Your task to perform on an android device: toggle translation in the chrome app Image 0: 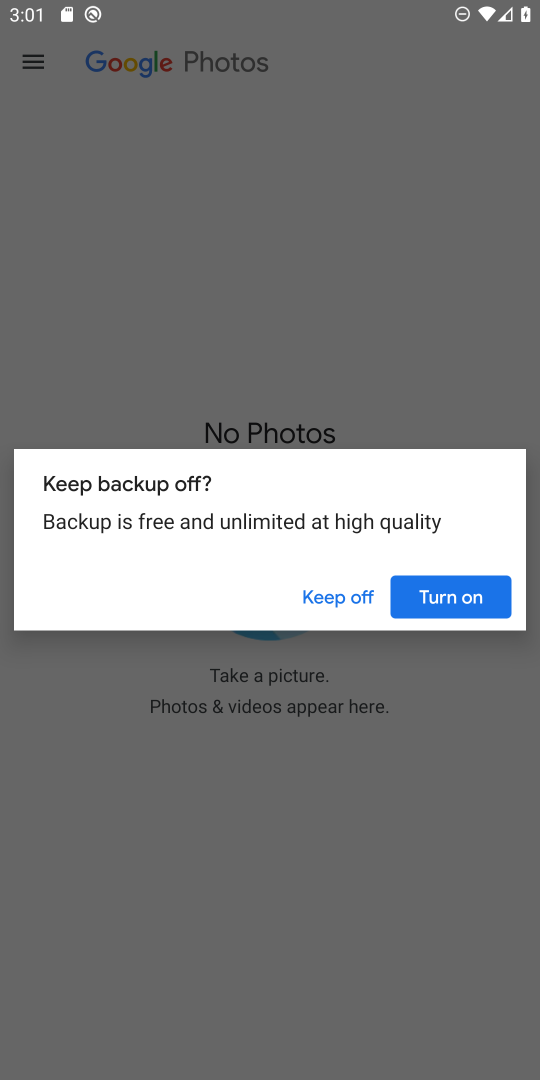
Step 0: click (451, 602)
Your task to perform on an android device: toggle translation in the chrome app Image 1: 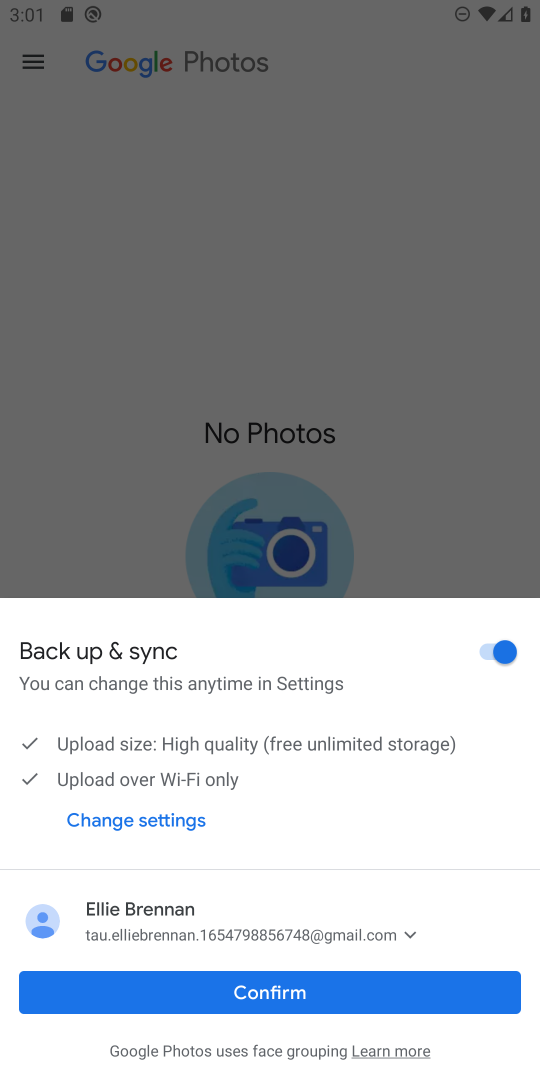
Step 1: press home button
Your task to perform on an android device: toggle translation in the chrome app Image 2: 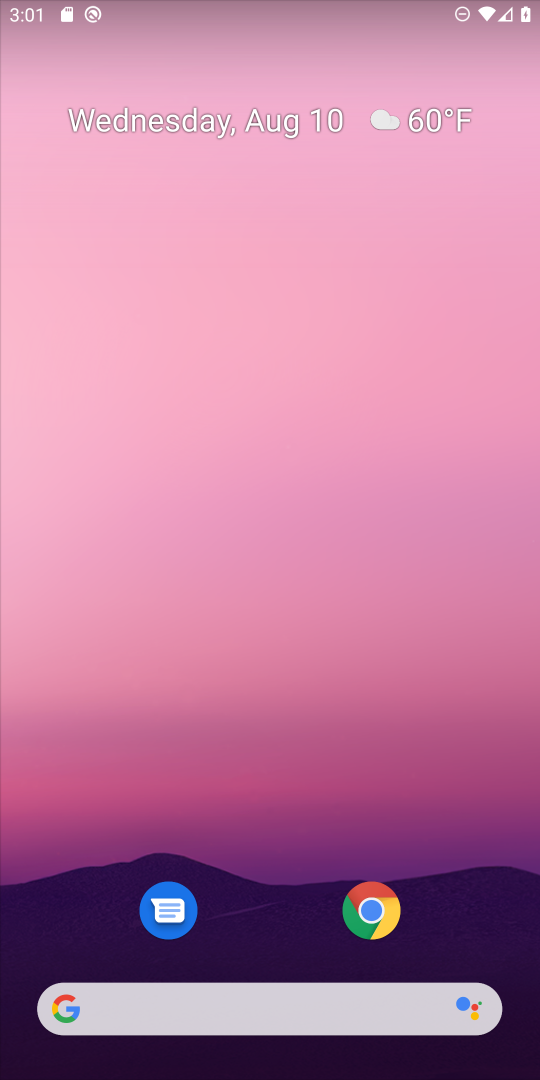
Step 2: click (378, 926)
Your task to perform on an android device: toggle translation in the chrome app Image 3: 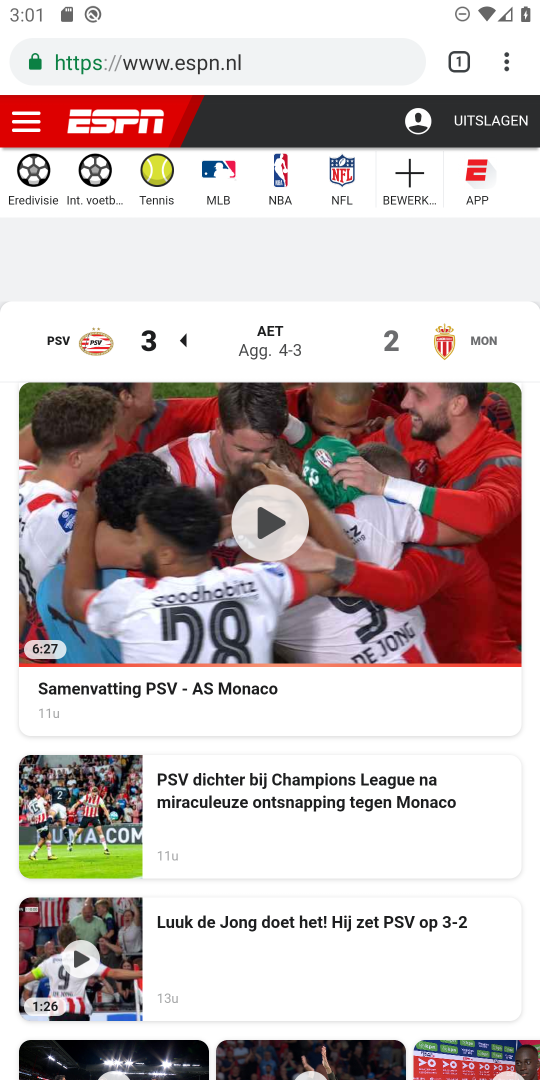
Step 3: click (500, 55)
Your task to perform on an android device: toggle translation in the chrome app Image 4: 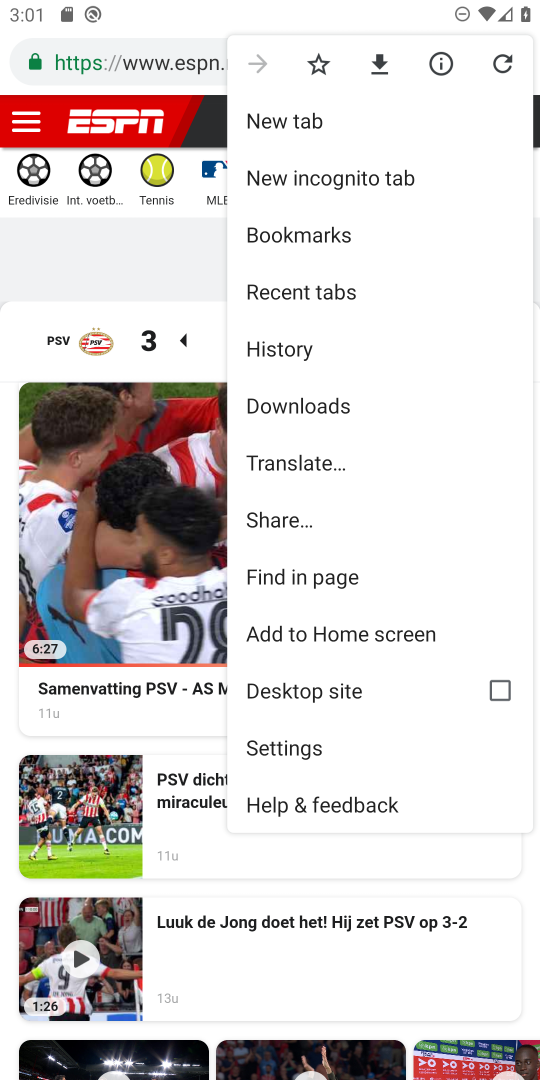
Step 4: click (323, 748)
Your task to perform on an android device: toggle translation in the chrome app Image 5: 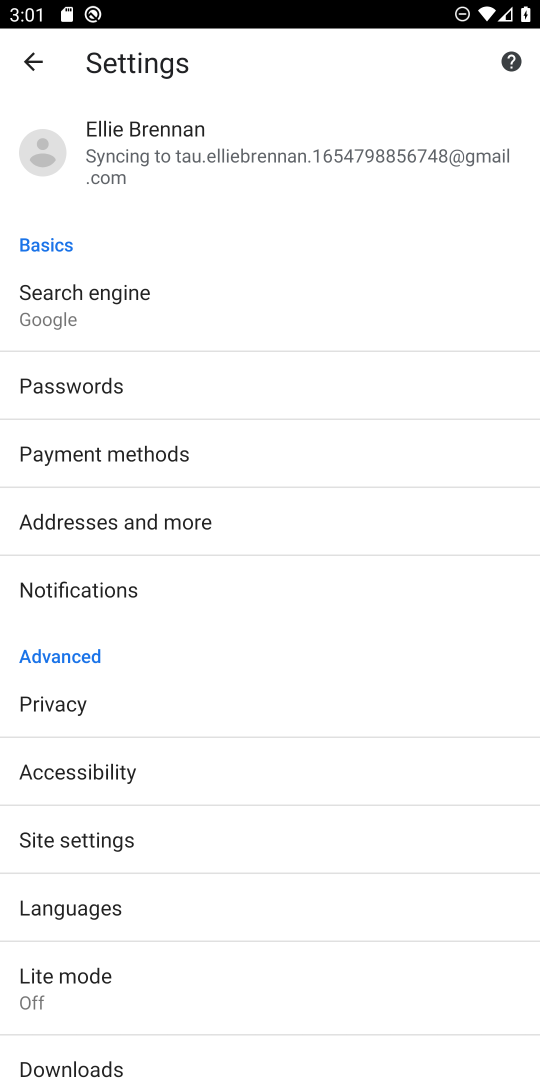
Step 5: click (179, 846)
Your task to perform on an android device: toggle translation in the chrome app Image 6: 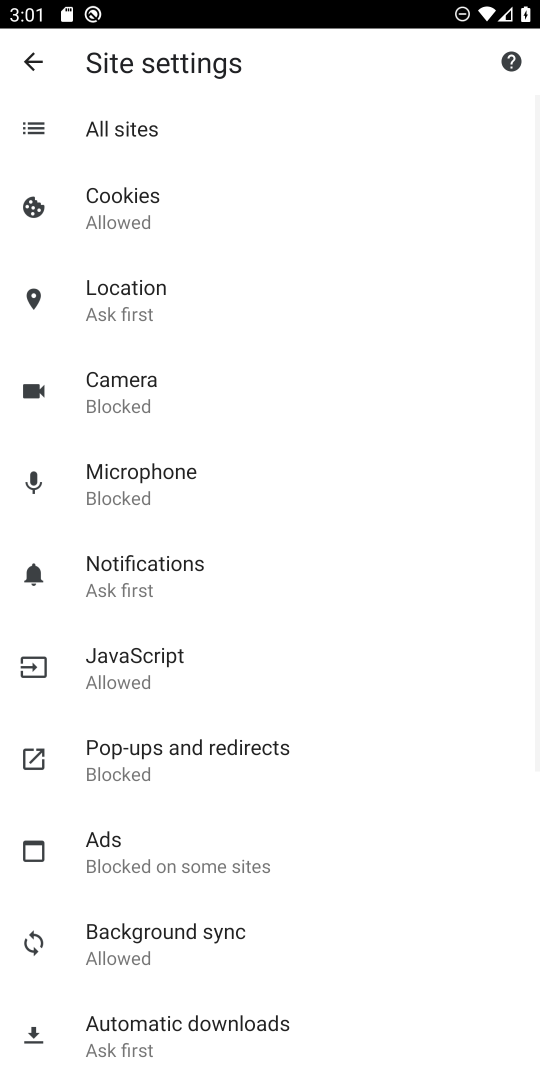
Step 6: click (25, 60)
Your task to perform on an android device: toggle translation in the chrome app Image 7: 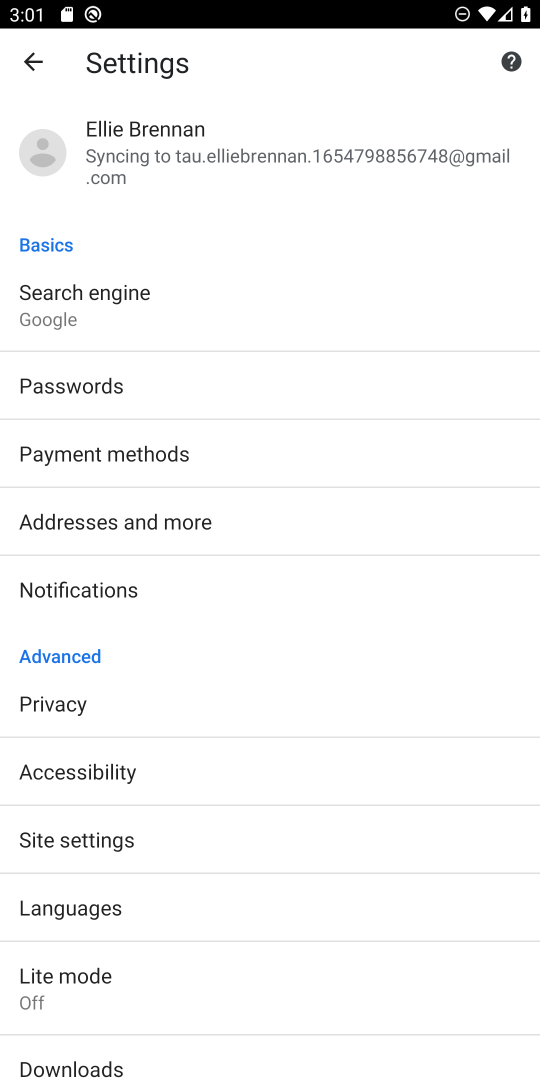
Step 7: click (98, 909)
Your task to perform on an android device: toggle translation in the chrome app Image 8: 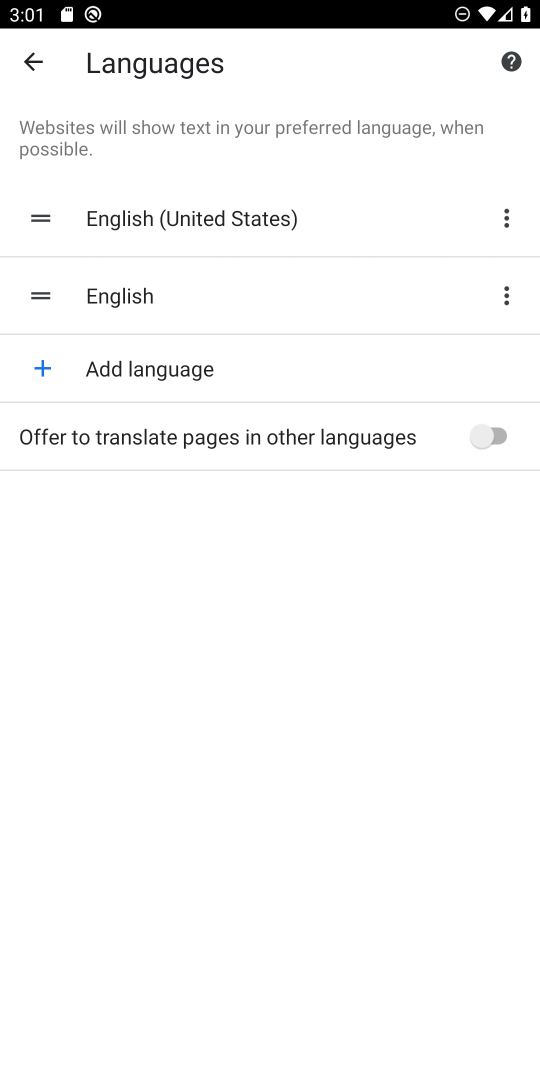
Step 8: click (484, 438)
Your task to perform on an android device: toggle translation in the chrome app Image 9: 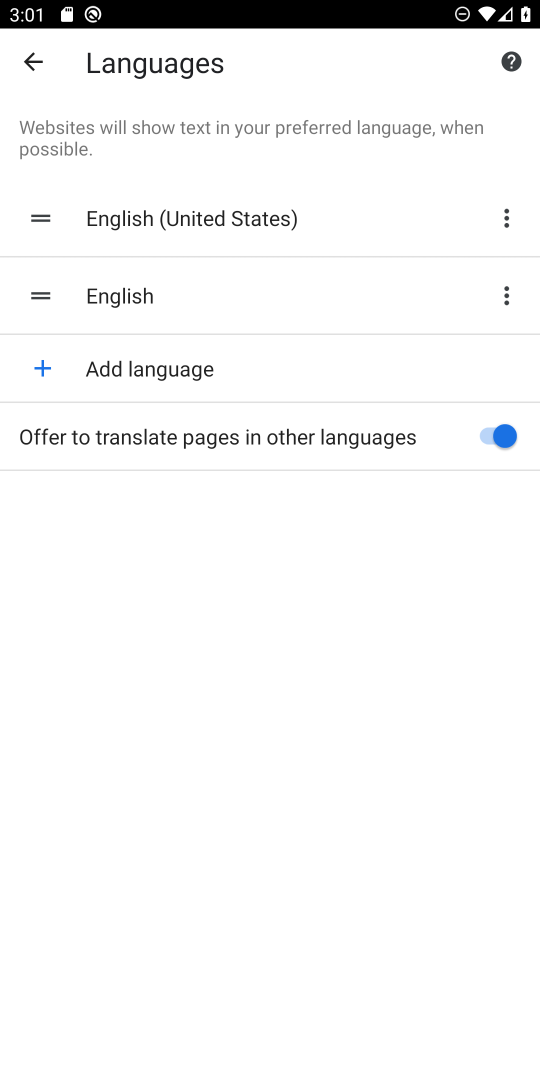
Step 9: task complete